Your task to perform on an android device: Set the phone to "Do not disturb". Image 0: 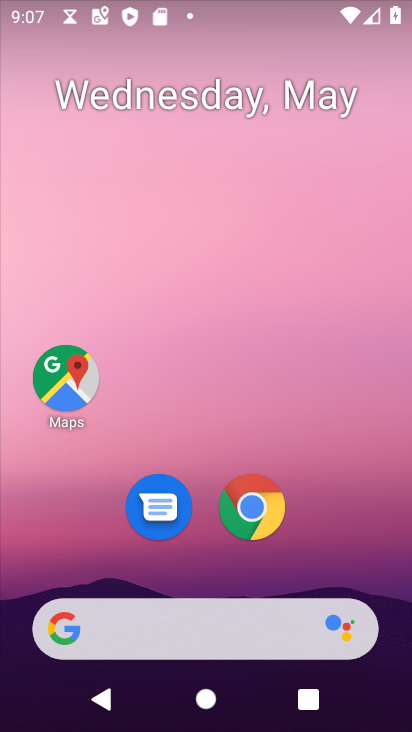
Step 0: drag from (340, 9) to (351, 487)
Your task to perform on an android device: Set the phone to "Do not disturb". Image 1: 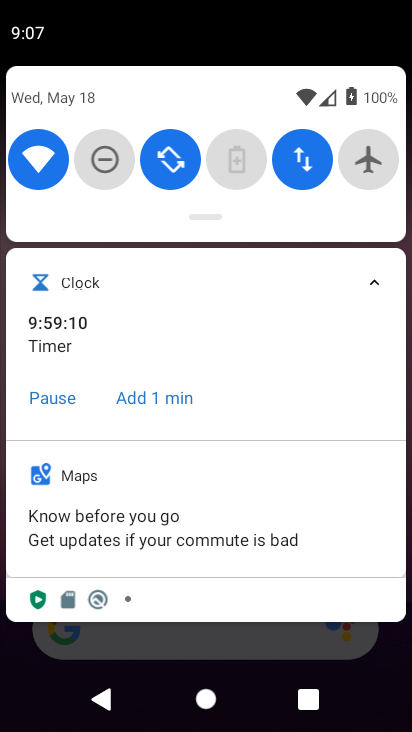
Step 1: click (112, 164)
Your task to perform on an android device: Set the phone to "Do not disturb". Image 2: 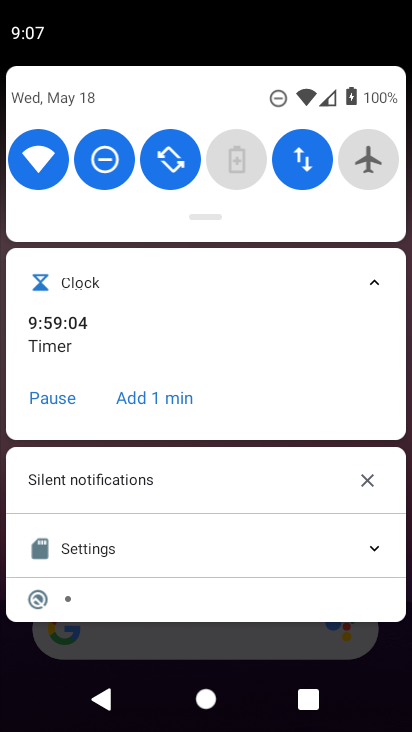
Step 2: task complete